Your task to perform on an android device: Open the stopwatch Image 0: 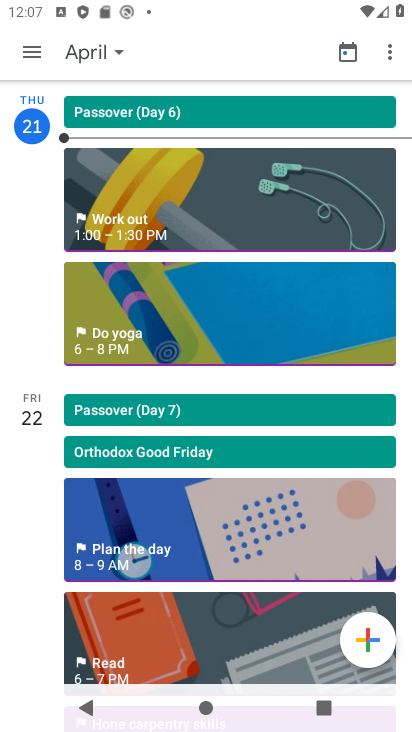
Step 0: press home button
Your task to perform on an android device: Open the stopwatch Image 1: 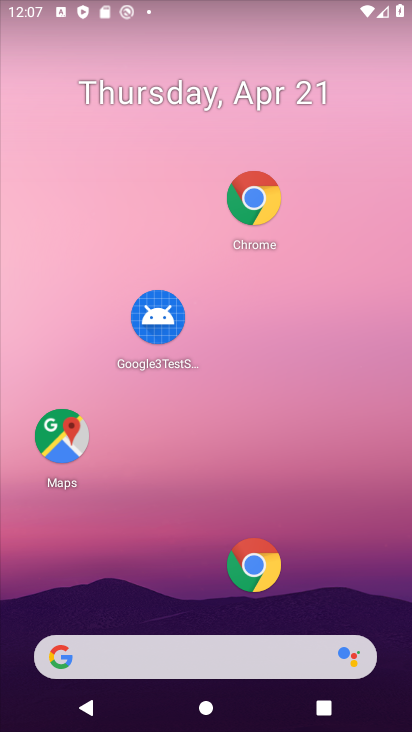
Step 1: drag from (194, 563) to (196, 80)
Your task to perform on an android device: Open the stopwatch Image 2: 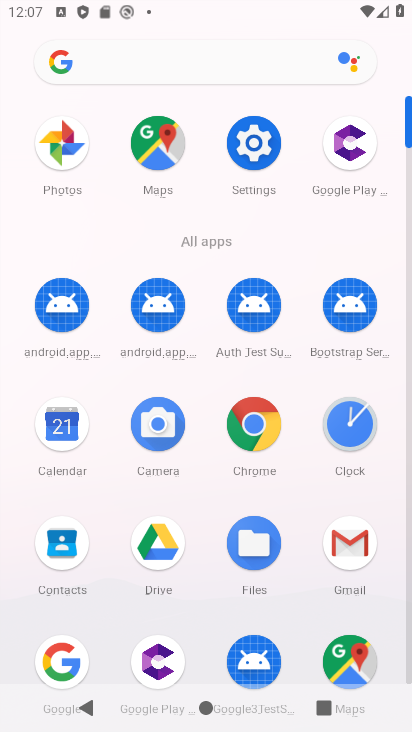
Step 2: click (253, 148)
Your task to perform on an android device: Open the stopwatch Image 3: 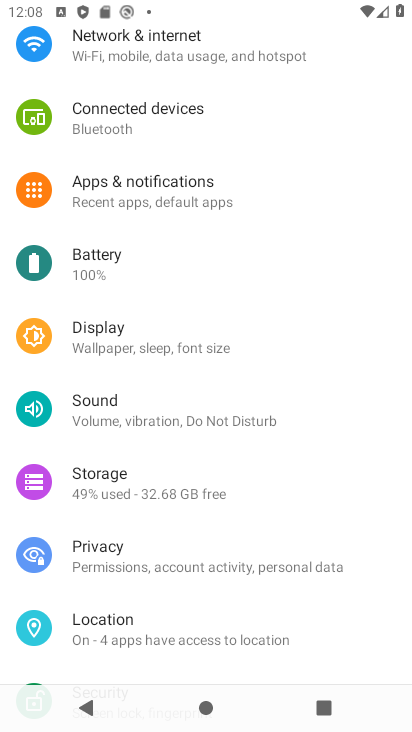
Step 3: press home button
Your task to perform on an android device: Open the stopwatch Image 4: 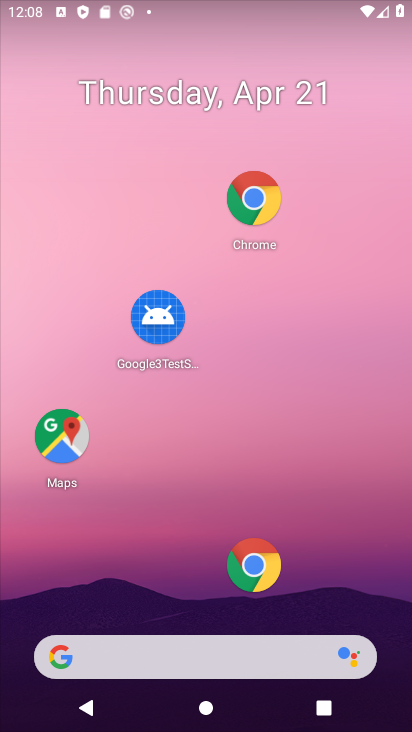
Step 4: drag from (307, 454) to (320, 97)
Your task to perform on an android device: Open the stopwatch Image 5: 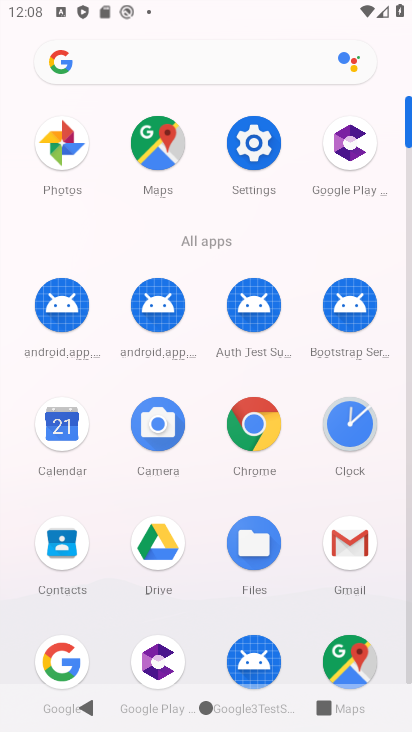
Step 5: click (349, 421)
Your task to perform on an android device: Open the stopwatch Image 6: 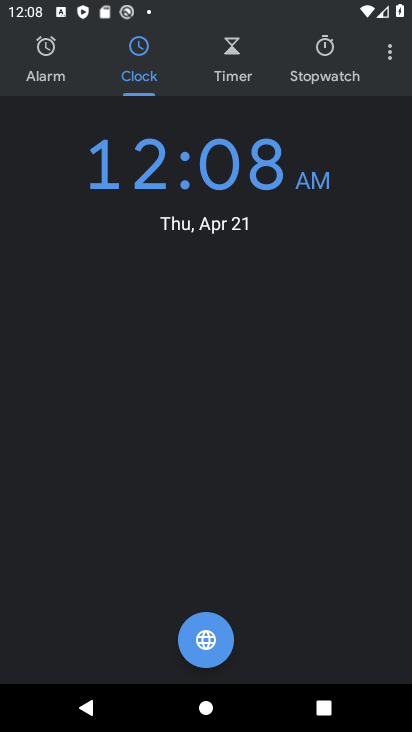
Step 6: click (312, 75)
Your task to perform on an android device: Open the stopwatch Image 7: 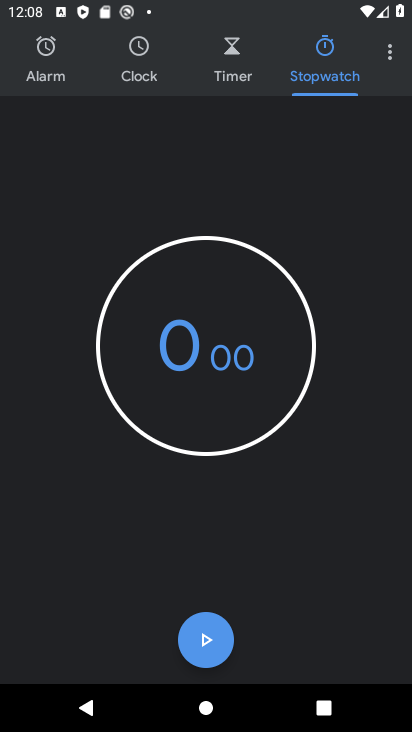
Step 7: task complete